Your task to perform on an android device: Go to location settings Image 0: 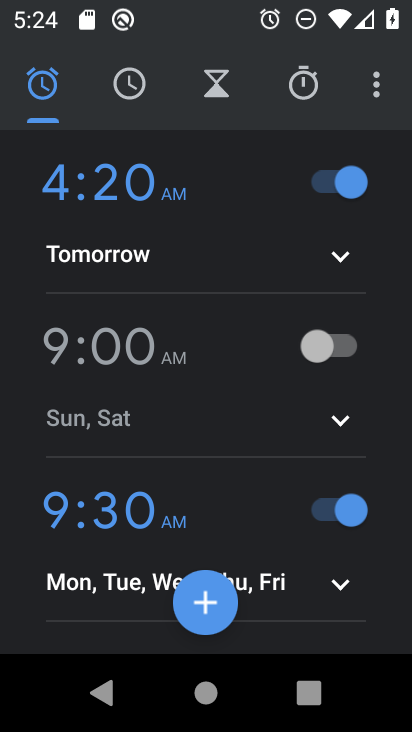
Step 0: press home button
Your task to perform on an android device: Go to location settings Image 1: 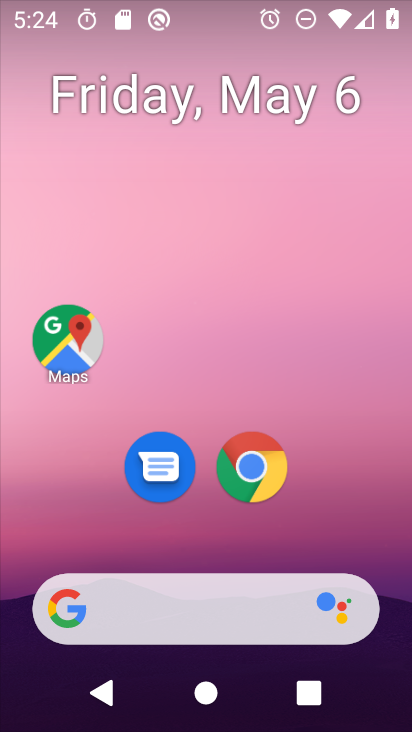
Step 1: drag from (302, 532) to (255, 194)
Your task to perform on an android device: Go to location settings Image 2: 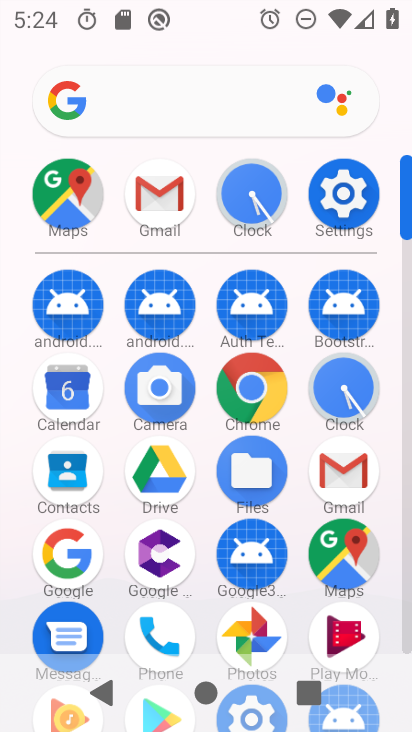
Step 2: click (331, 196)
Your task to perform on an android device: Go to location settings Image 3: 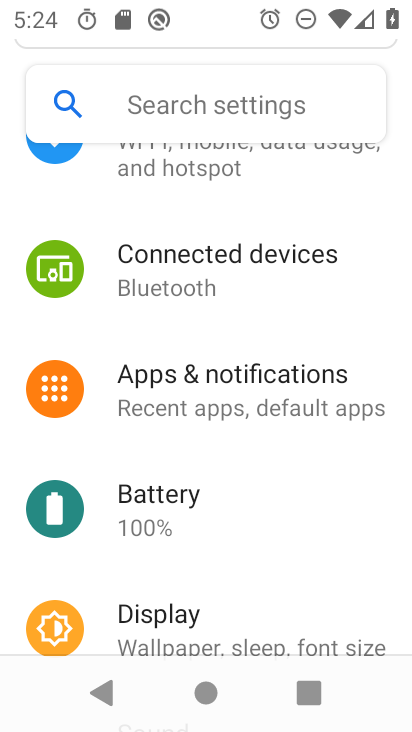
Step 3: drag from (333, 221) to (316, 509)
Your task to perform on an android device: Go to location settings Image 4: 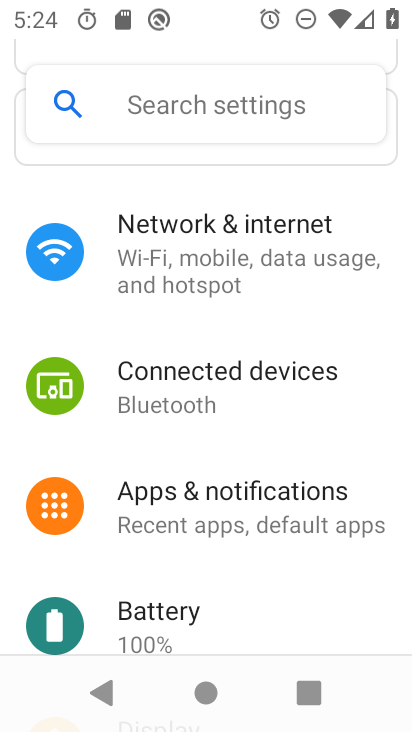
Step 4: drag from (245, 572) to (233, 259)
Your task to perform on an android device: Go to location settings Image 5: 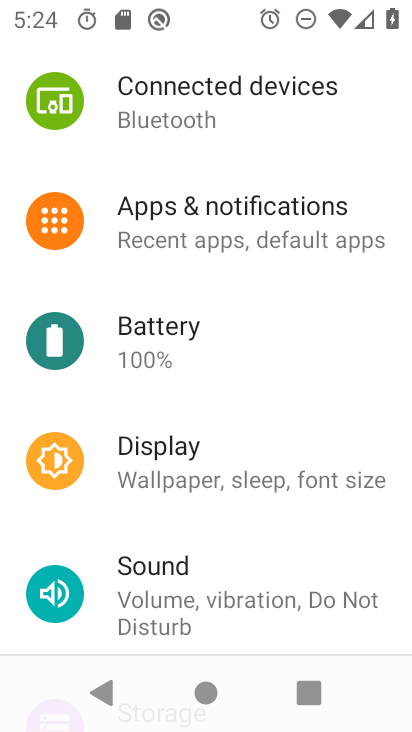
Step 5: drag from (186, 560) to (253, 87)
Your task to perform on an android device: Go to location settings Image 6: 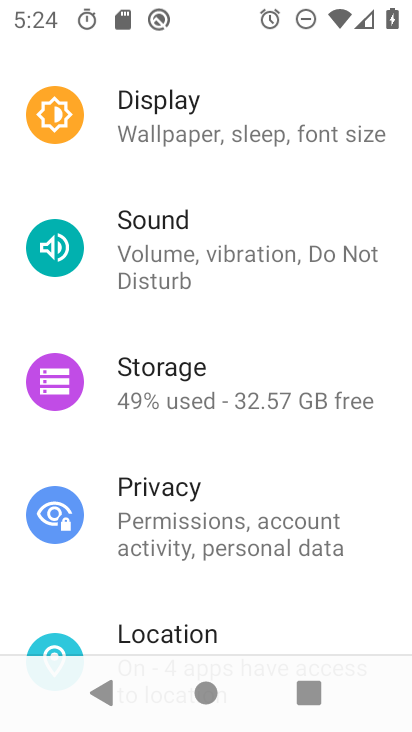
Step 6: click (159, 639)
Your task to perform on an android device: Go to location settings Image 7: 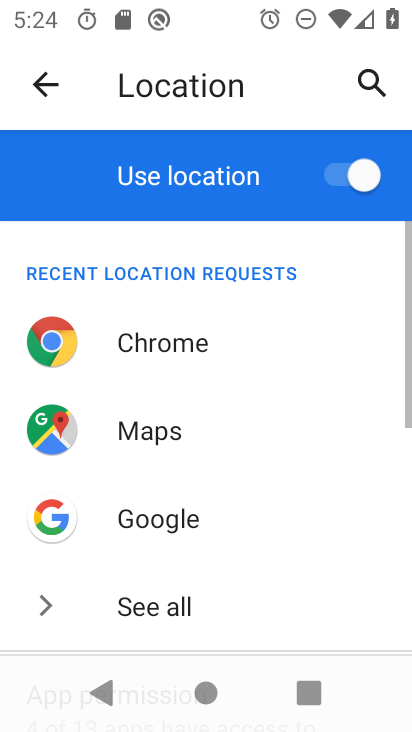
Step 7: task complete